Your task to perform on an android device: Open sound settings Image 0: 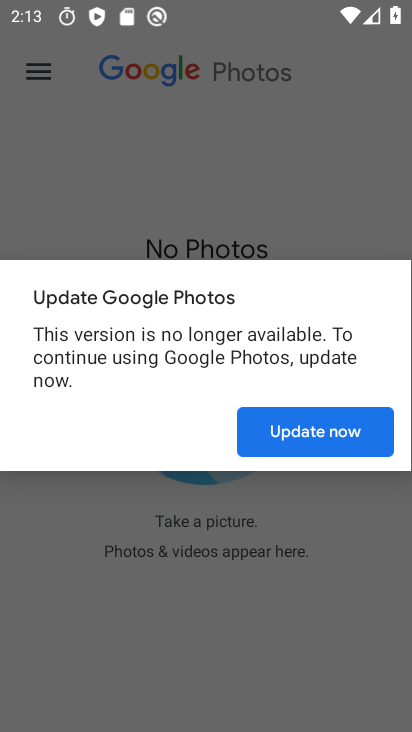
Step 0: press home button
Your task to perform on an android device: Open sound settings Image 1: 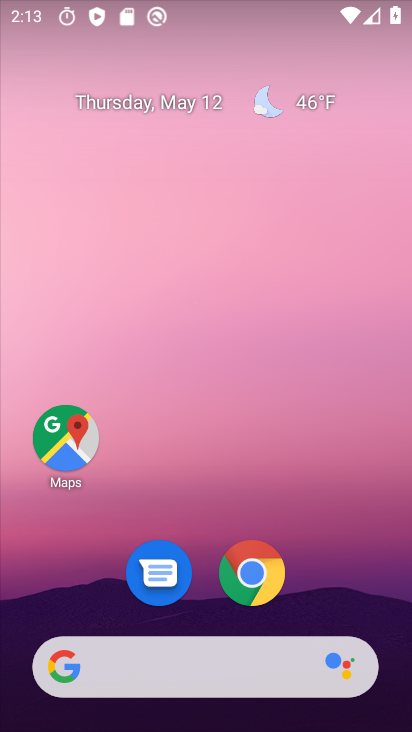
Step 1: drag from (211, 619) to (194, 256)
Your task to perform on an android device: Open sound settings Image 2: 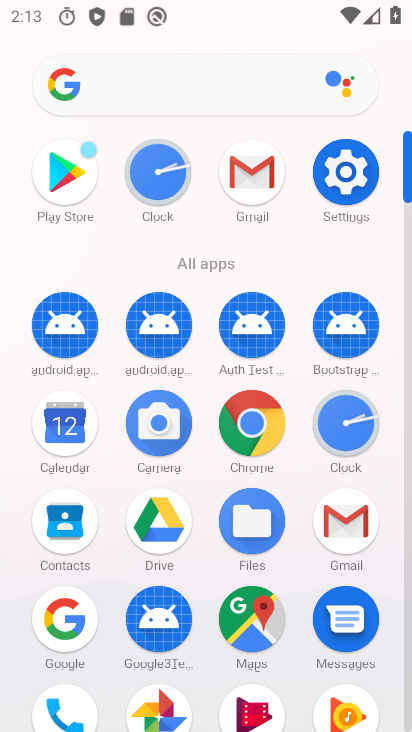
Step 2: click (331, 174)
Your task to perform on an android device: Open sound settings Image 3: 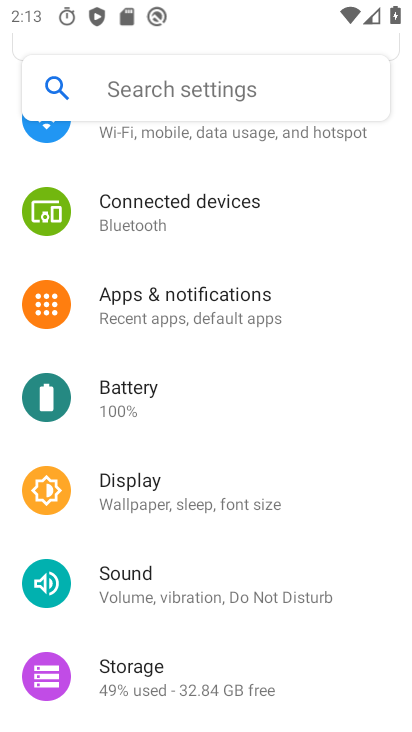
Step 3: click (137, 598)
Your task to perform on an android device: Open sound settings Image 4: 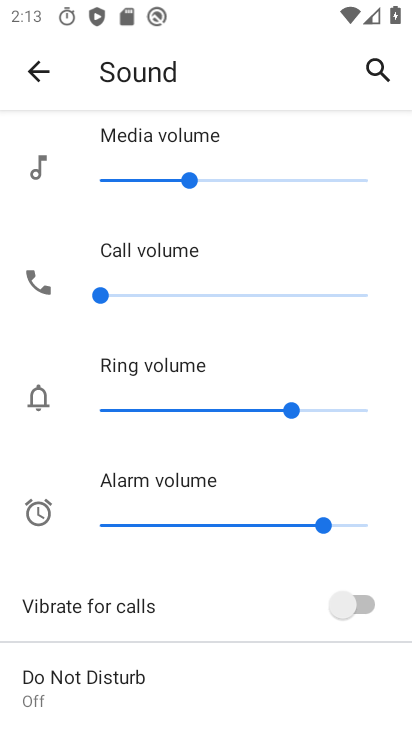
Step 4: task complete